Your task to perform on an android device: open app "DuckDuckGo Privacy Browser" (install if not already installed) and go to login screen Image 0: 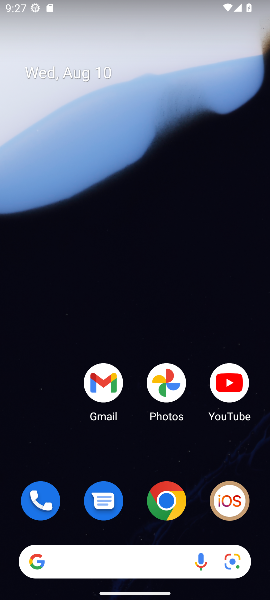
Step 0: click (267, 546)
Your task to perform on an android device: open app "DuckDuckGo Privacy Browser" (install if not already installed) and go to login screen Image 1: 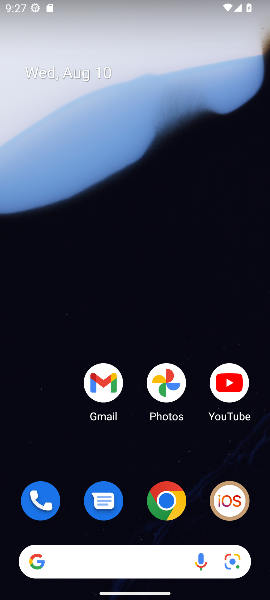
Step 1: click (168, 515)
Your task to perform on an android device: open app "DuckDuckGo Privacy Browser" (install if not already installed) and go to login screen Image 2: 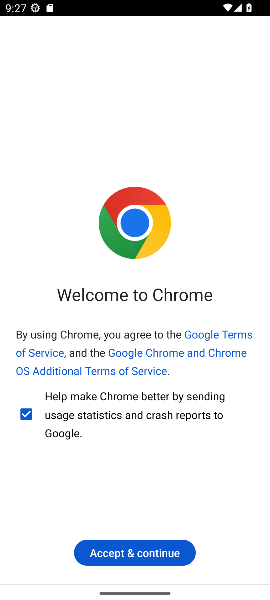
Step 2: click (174, 547)
Your task to perform on an android device: open app "DuckDuckGo Privacy Browser" (install if not already installed) and go to login screen Image 3: 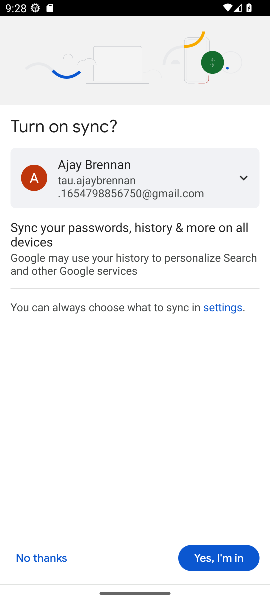
Step 3: press home button
Your task to perform on an android device: open app "DuckDuckGo Privacy Browser" (install if not already installed) and go to login screen Image 4: 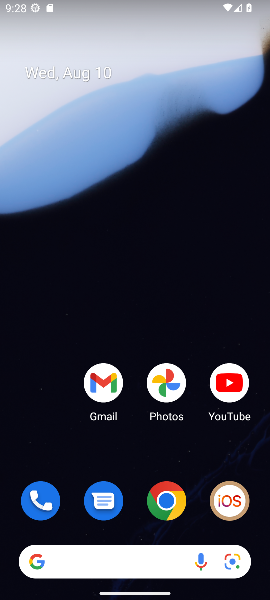
Step 4: drag from (135, 524) to (111, 208)
Your task to perform on an android device: open app "DuckDuckGo Privacy Browser" (install if not already installed) and go to login screen Image 5: 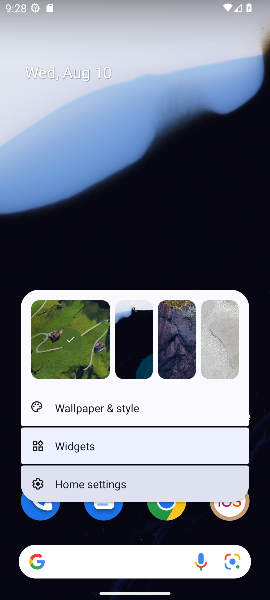
Step 5: click (112, 164)
Your task to perform on an android device: open app "DuckDuckGo Privacy Browser" (install if not already installed) and go to login screen Image 6: 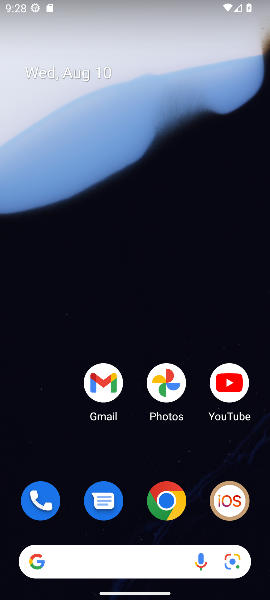
Step 6: drag from (134, 534) to (202, 53)
Your task to perform on an android device: open app "DuckDuckGo Privacy Browser" (install if not already installed) and go to login screen Image 7: 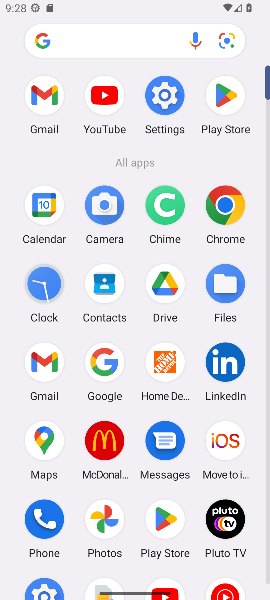
Step 7: click (169, 374)
Your task to perform on an android device: open app "DuckDuckGo Privacy Browser" (install if not already installed) and go to login screen Image 8: 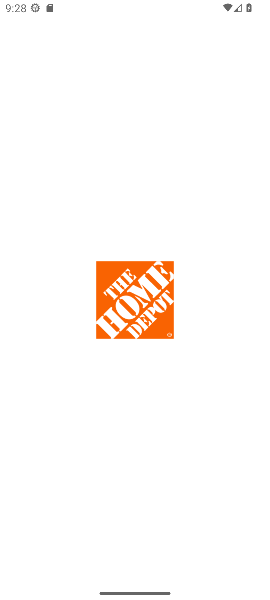
Step 8: task complete